Your task to perform on an android device: Open the web browser Image 0: 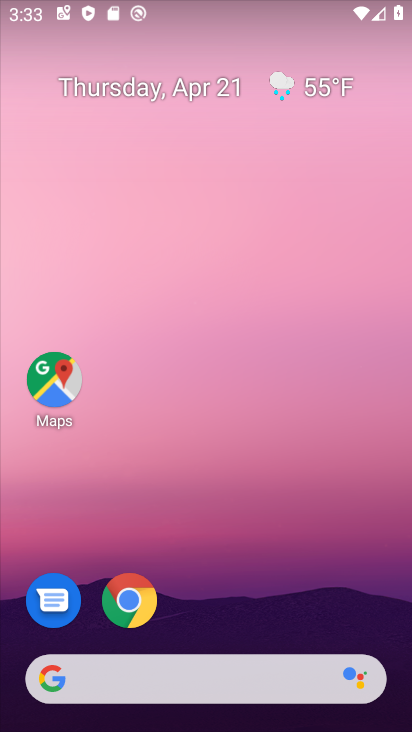
Step 0: drag from (209, 678) to (311, 109)
Your task to perform on an android device: Open the web browser Image 1: 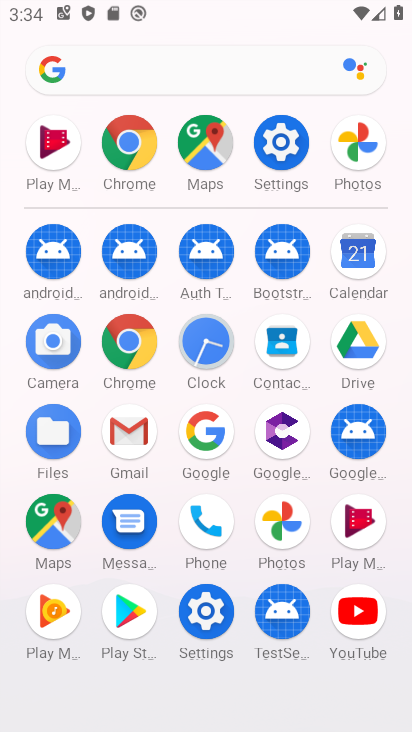
Step 1: click (138, 149)
Your task to perform on an android device: Open the web browser Image 2: 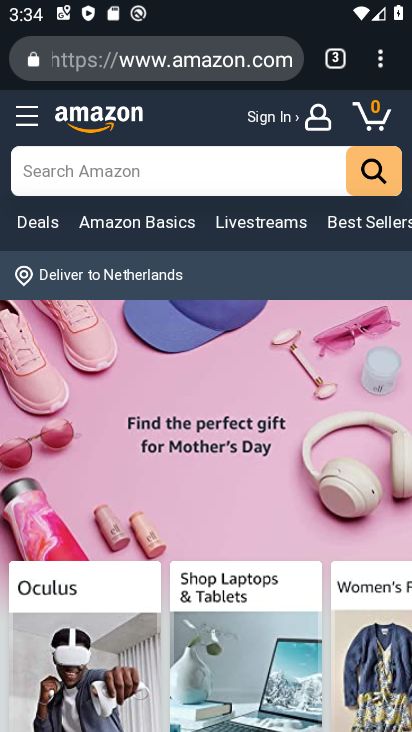
Step 2: click (371, 72)
Your task to perform on an android device: Open the web browser Image 3: 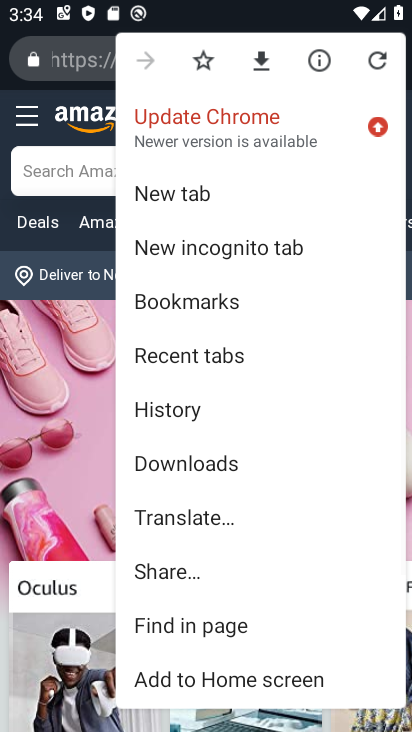
Step 3: click (170, 196)
Your task to perform on an android device: Open the web browser Image 4: 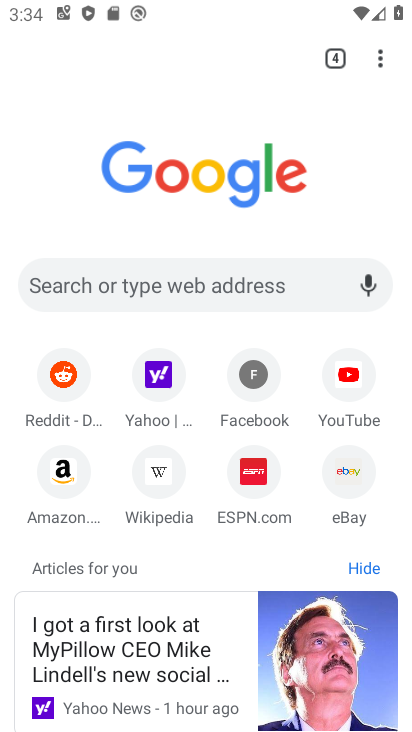
Step 4: task complete